Your task to perform on an android device: Search for vegetarian restaurants on Maps Image 0: 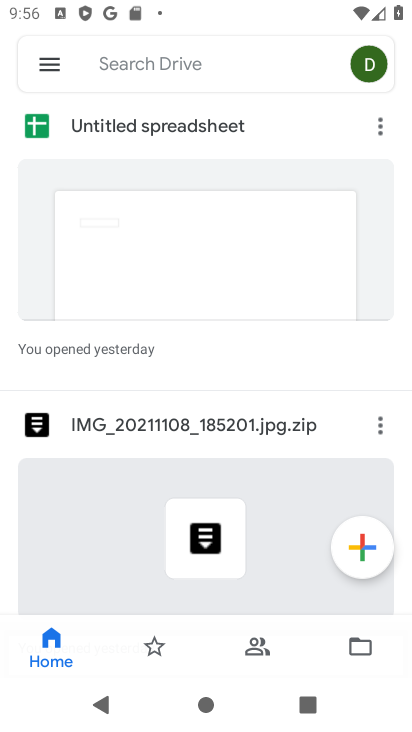
Step 0: press home button
Your task to perform on an android device: Search for vegetarian restaurants on Maps Image 1: 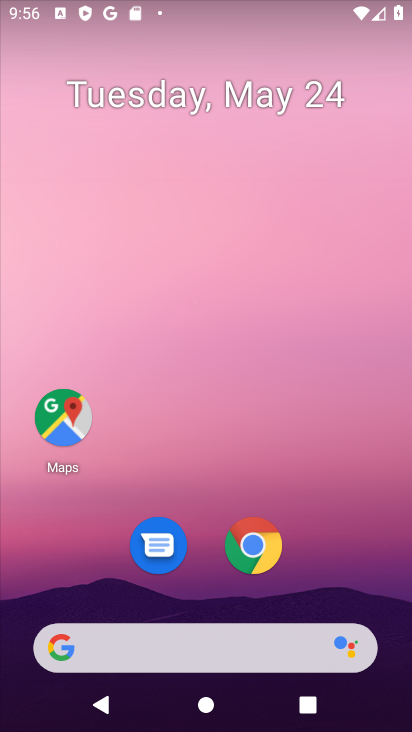
Step 1: click (247, 499)
Your task to perform on an android device: Search for vegetarian restaurants on Maps Image 2: 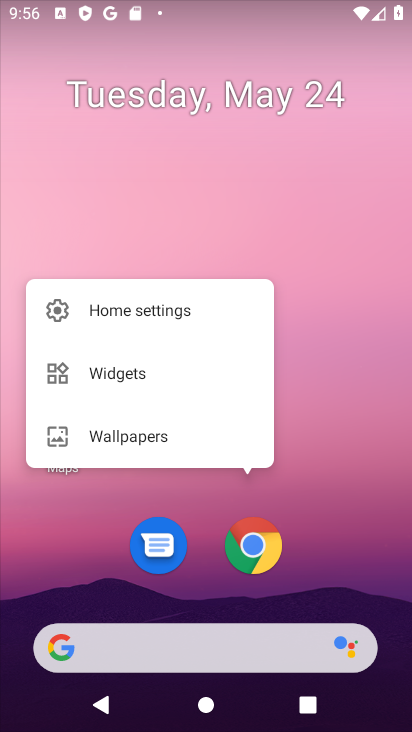
Step 2: click (71, 488)
Your task to perform on an android device: Search for vegetarian restaurants on Maps Image 3: 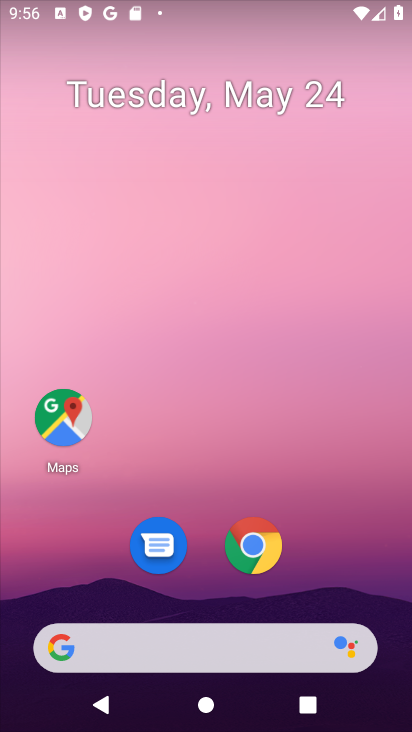
Step 3: click (62, 416)
Your task to perform on an android device: Search for vegetarian restaurants on Maps Image 4: 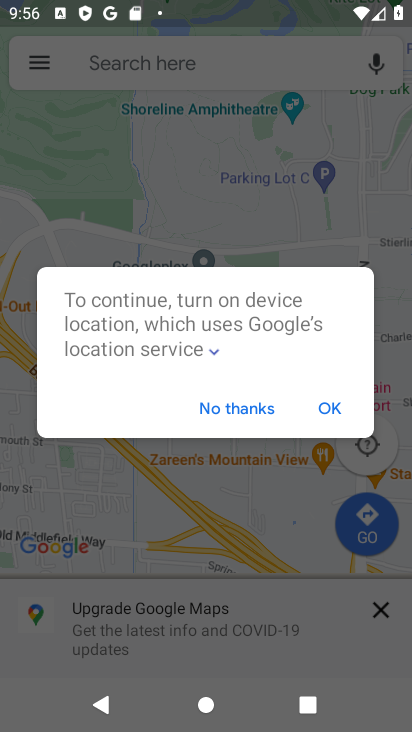
Step 4: click (240, 401)
Your task to perform on an android device: Search for vegetarian restaurants on Maps Image 5: 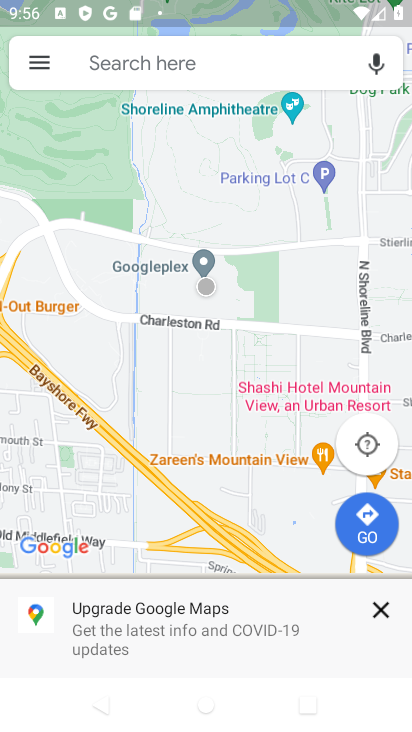
Step 5: click (235, 64)
Your task to perform on an android device: Search for vegetarian restaurants on Maps Image 6: 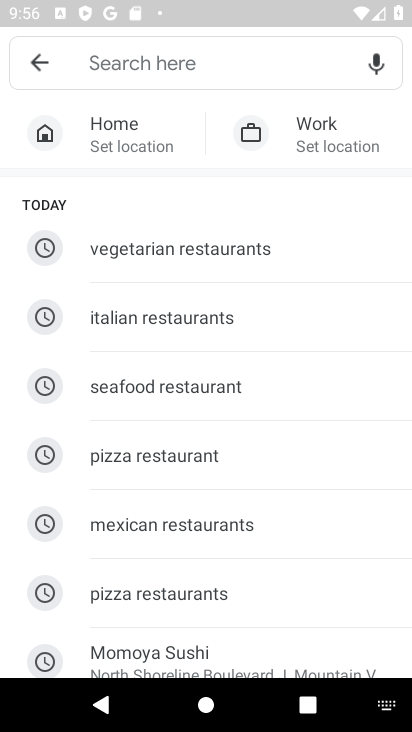
Step 6: click (160, 247)
Your task to perform on an android device: Search for vegetarian restaurants on Maps Image 7: 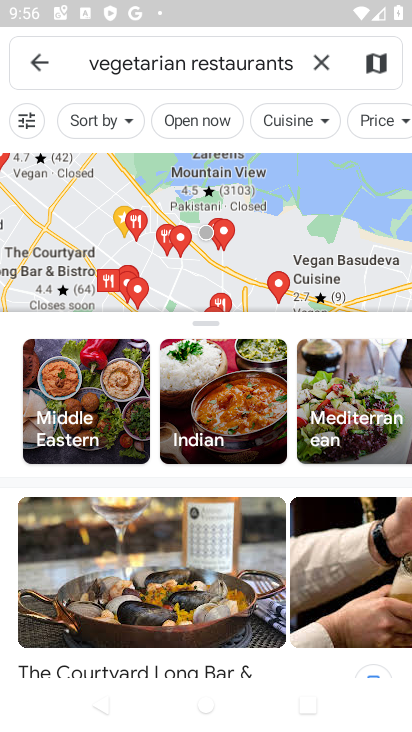
Step 7: task complete